Your task to perform on an android device: Play the new Ariana Grande video on YouTube Image 0: 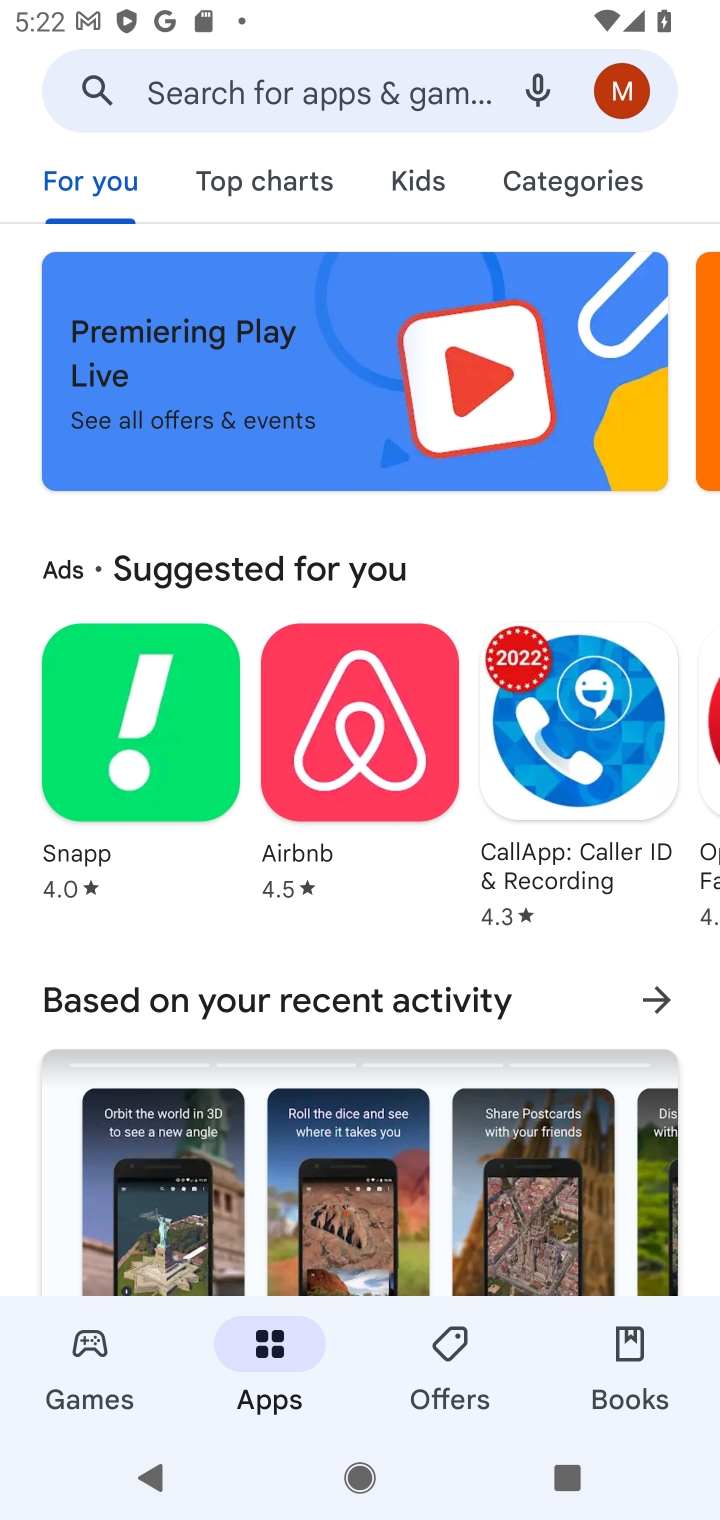
Step 0: press home button
Your task to perform on an android device: Play the new Ariana Grande video on YouTube Image 1: 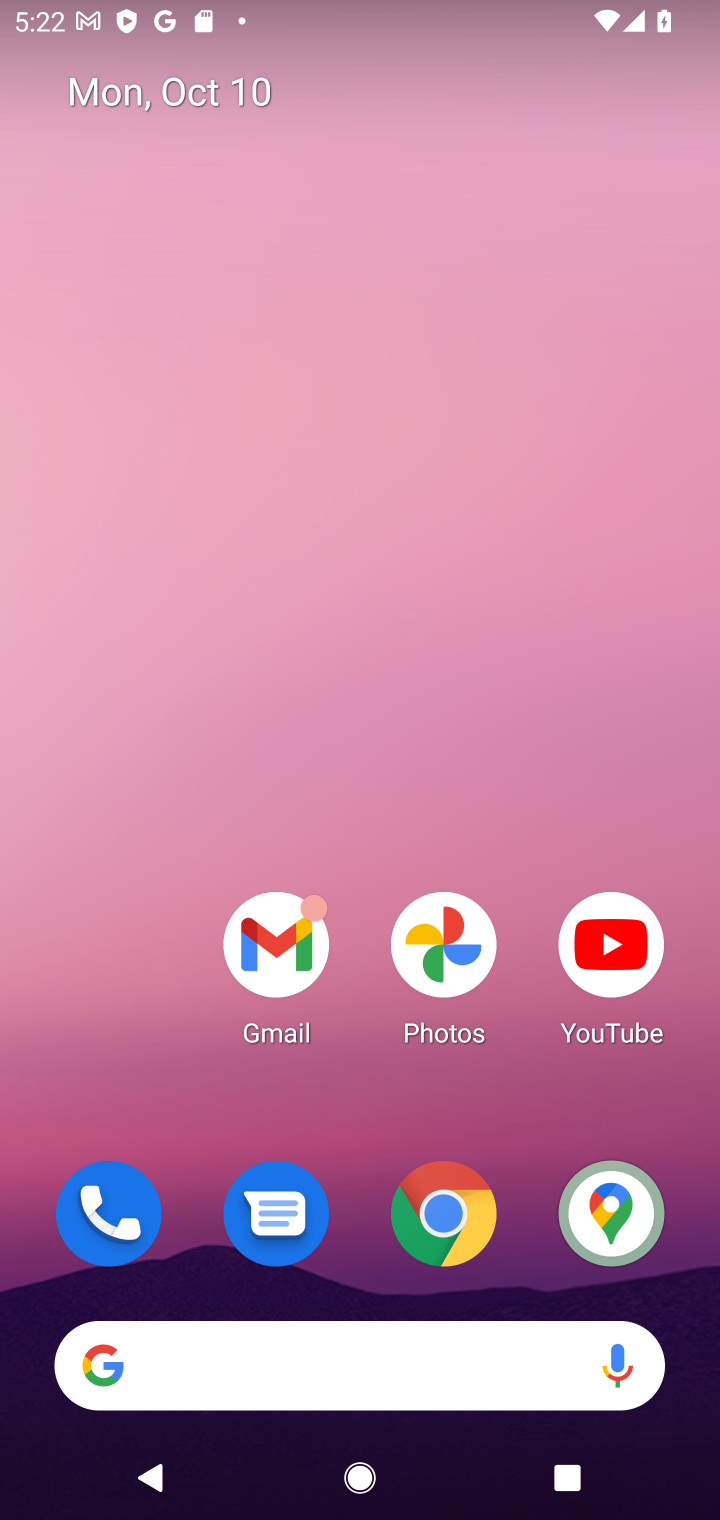
Step 1: click (647, 967)
Your task to perform on an android device: Play the new Ariana Grande video on YouTube Image 2: 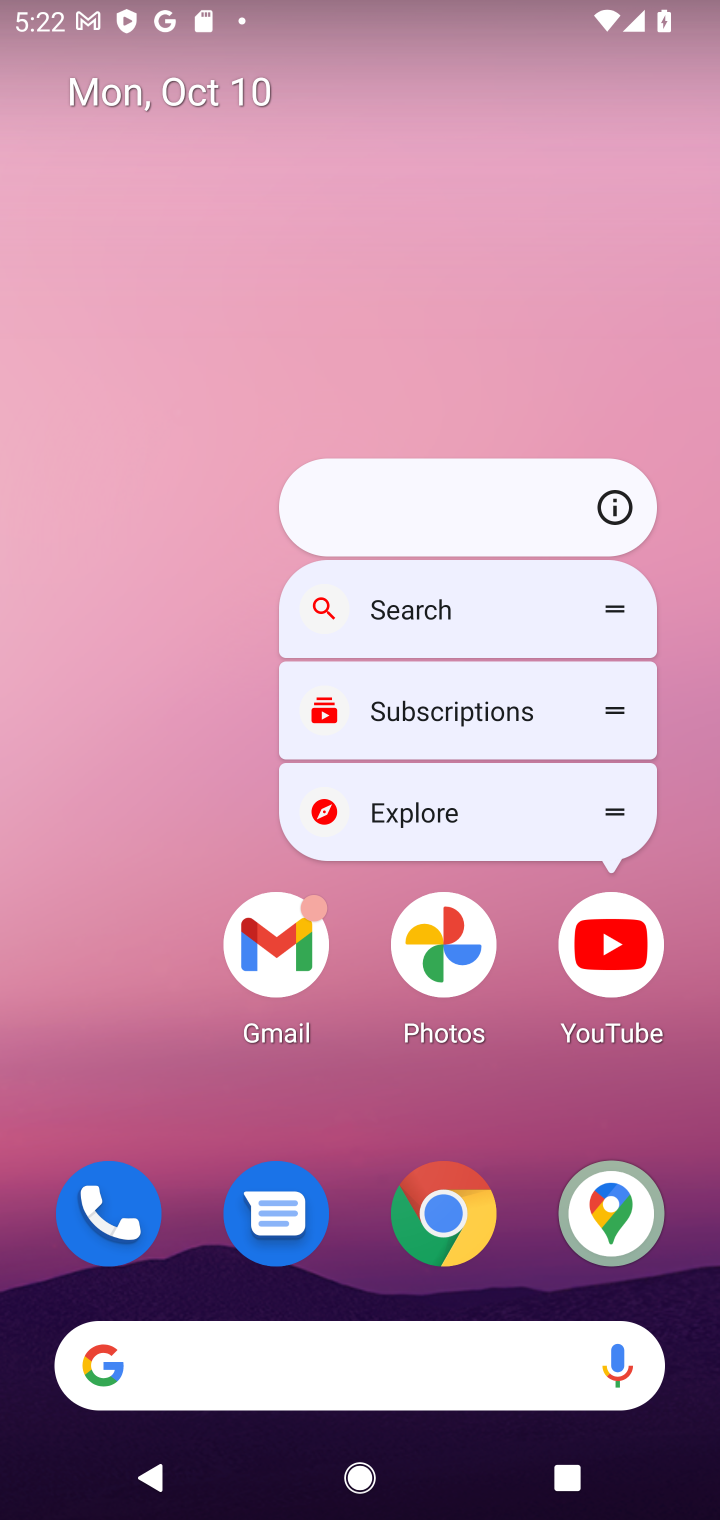
Step 2: click (629, 925)
Your task to perform on an android device: Play the new Ariana Grande video on YouTube Image 3: 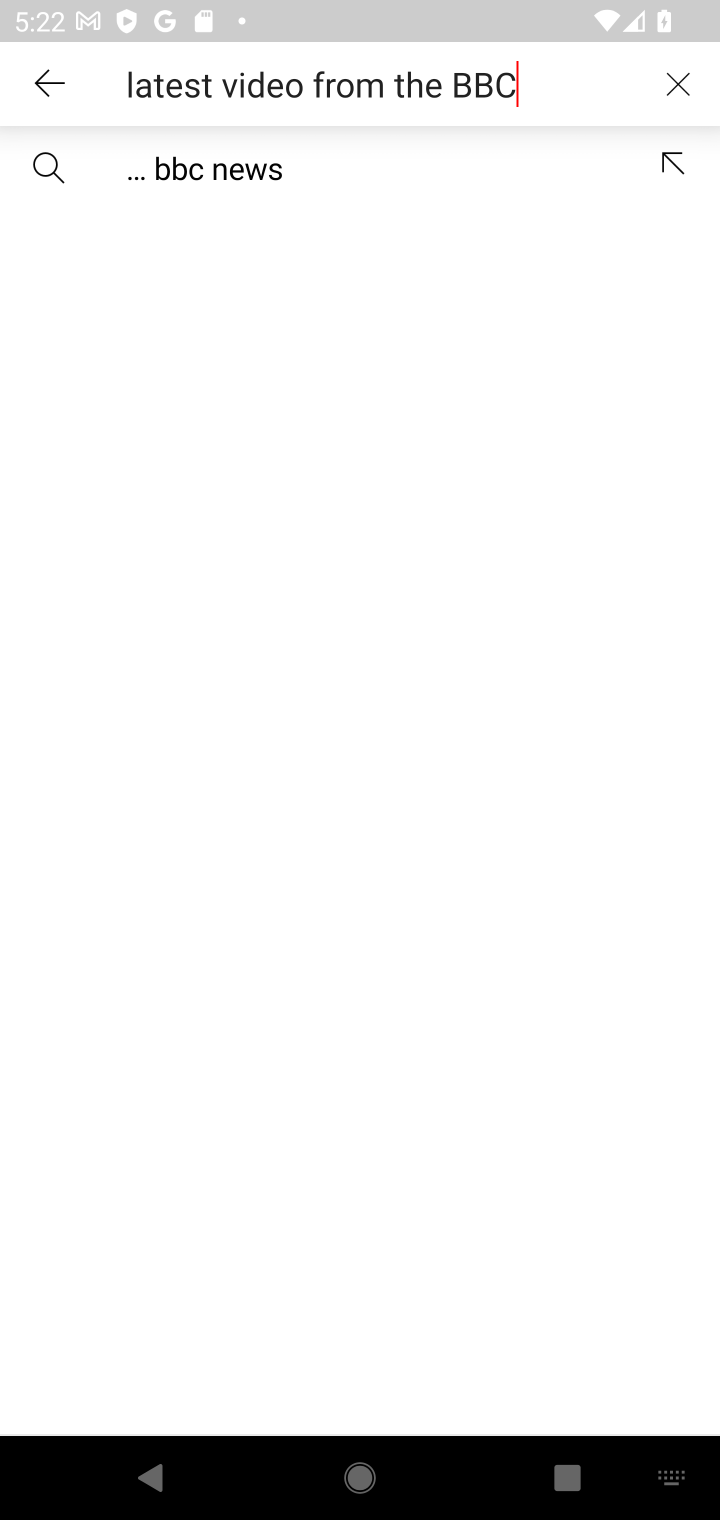
Step 3: click (658, 84)
Your task to perform on an android device: Play the new Ariana Grande video on YouTube Image 4: 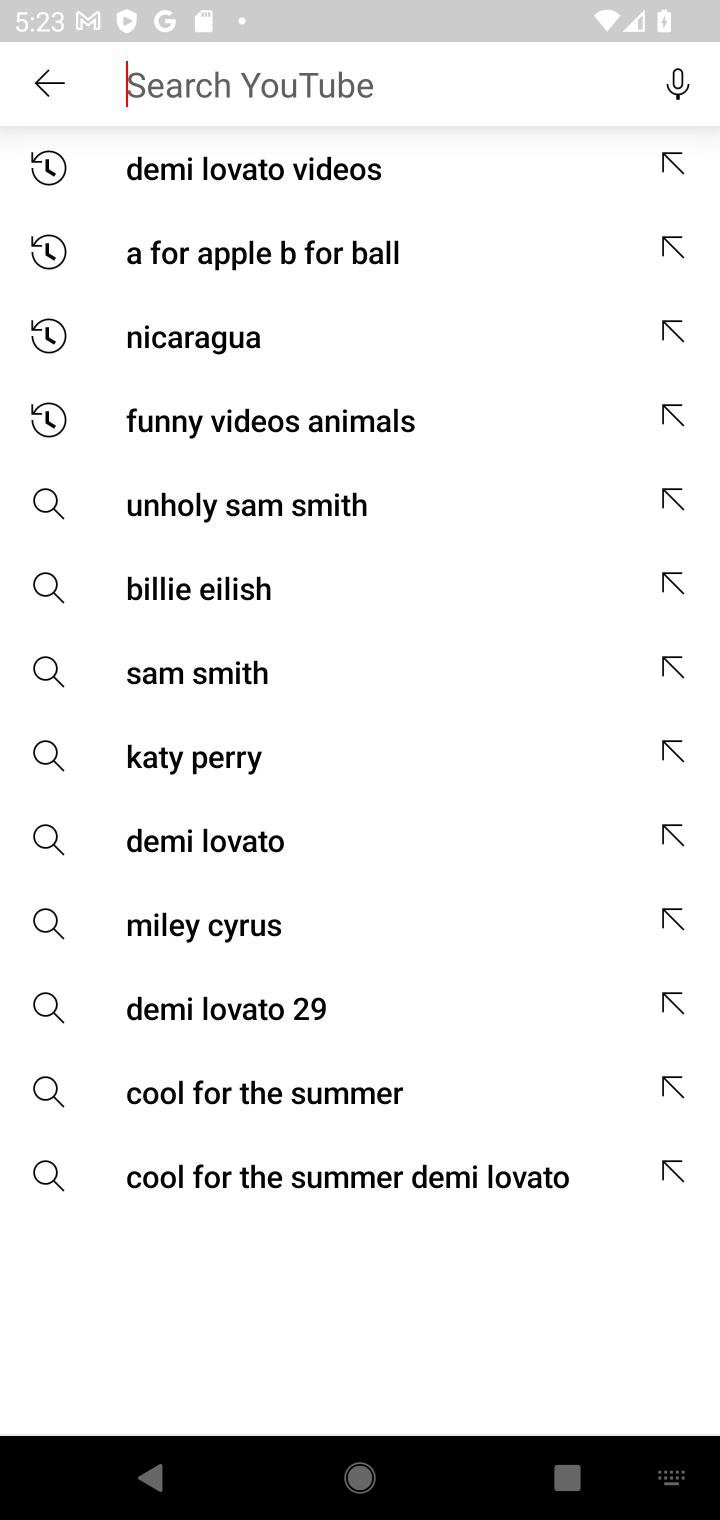
Step 4: type "Ariana Grande video"
Your task to perform on an android device: Play the new Ariana Grande video on YouTube Image 5: 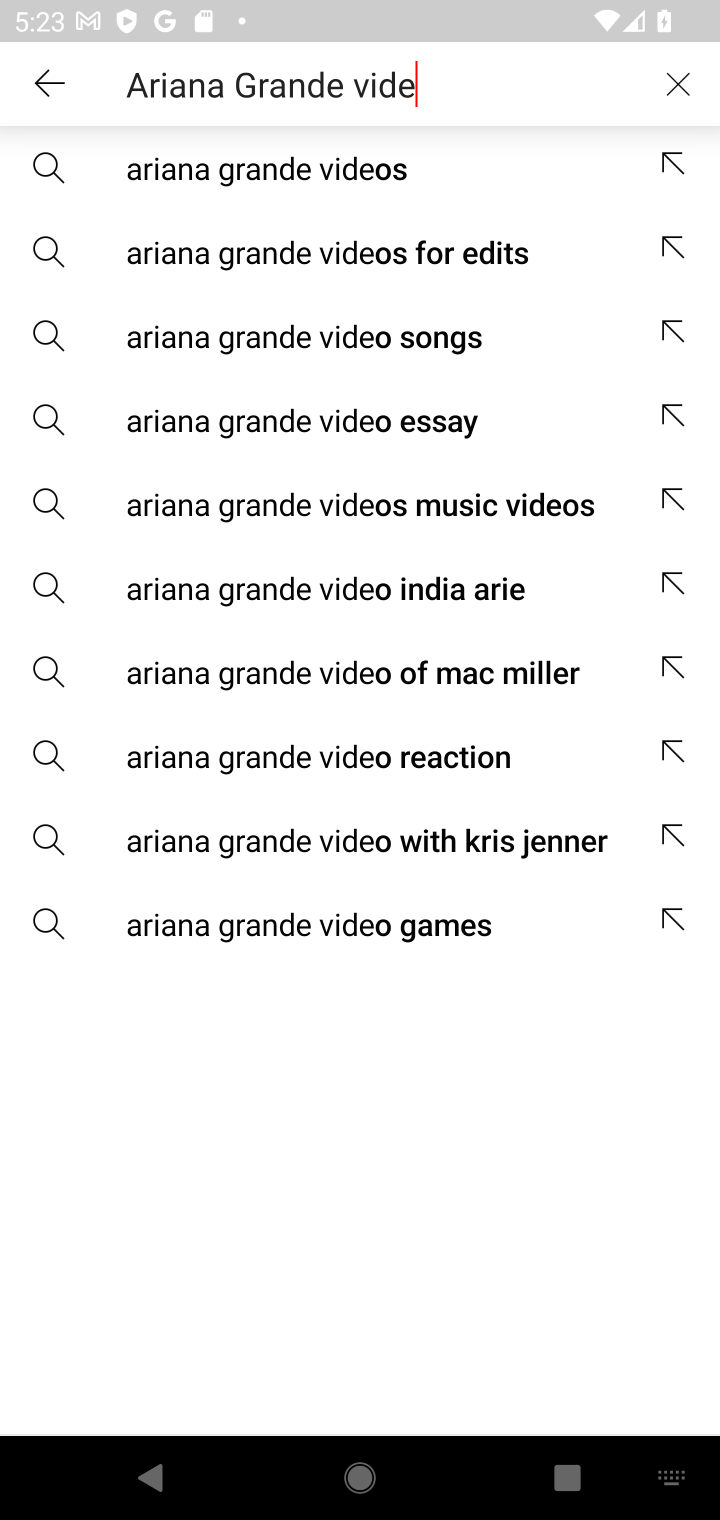
Step 5: type ""
Your task to perform on an android device: Play the new Ariana Grande video on YouTube Image 6: 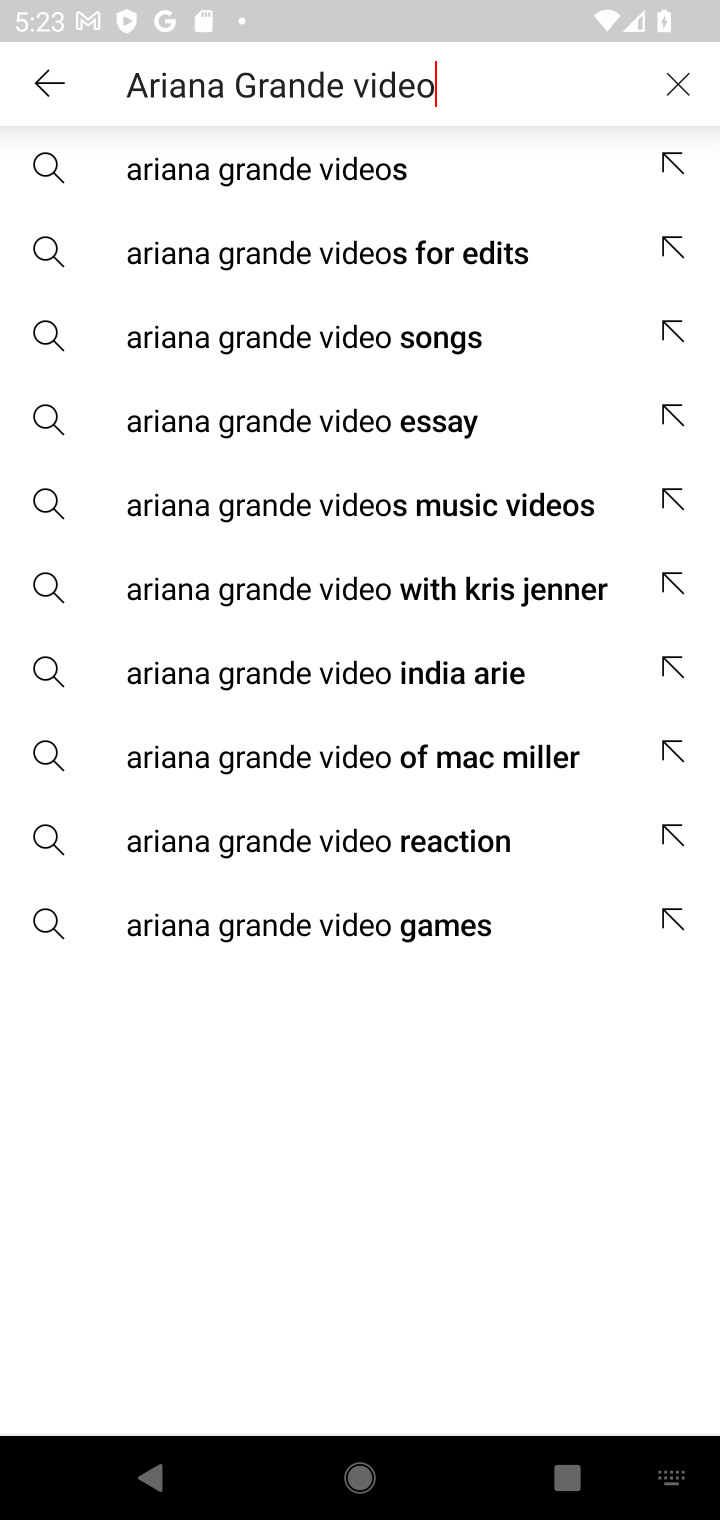
Step 6: click (436, 178)
Your task to perform on an android device: Play the new Ariana Grande video on YouTube Image 7: 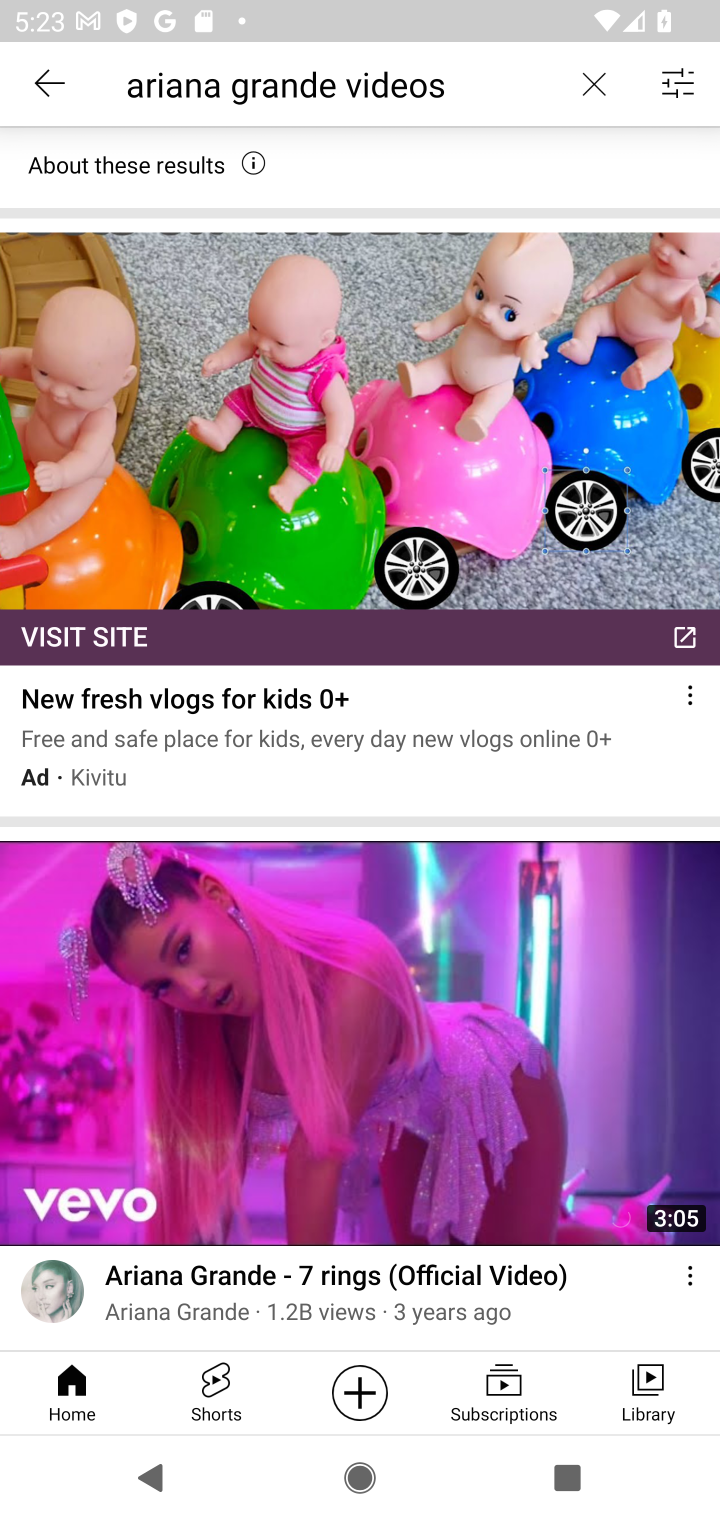
Step 7: click (378, 994)
Your task to perform on an android device: Play the new Ariana Grande video on YouTube Image 8: 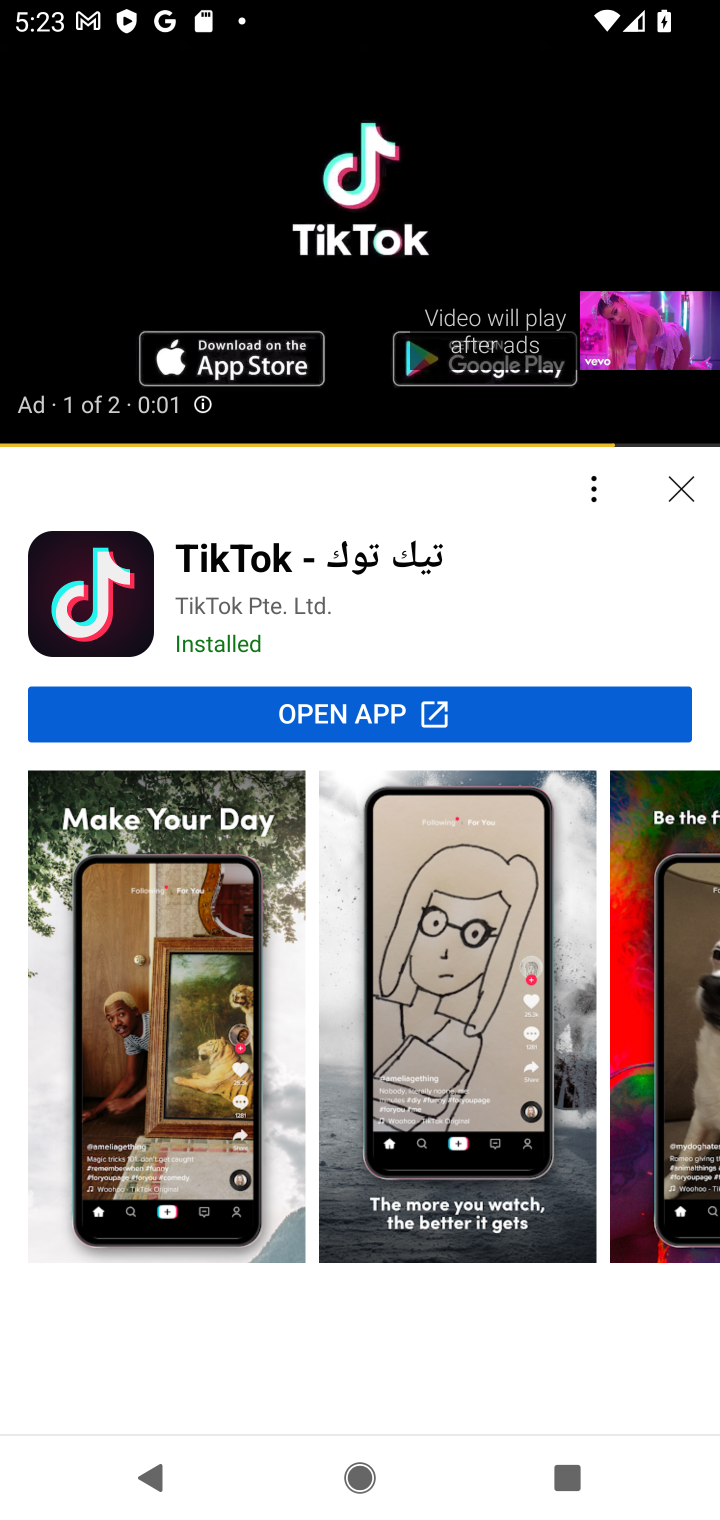
Step 8: click (672, 485)
Your task to perform on an android device: Play the new Ariana Grande video on YouTube Image 9: 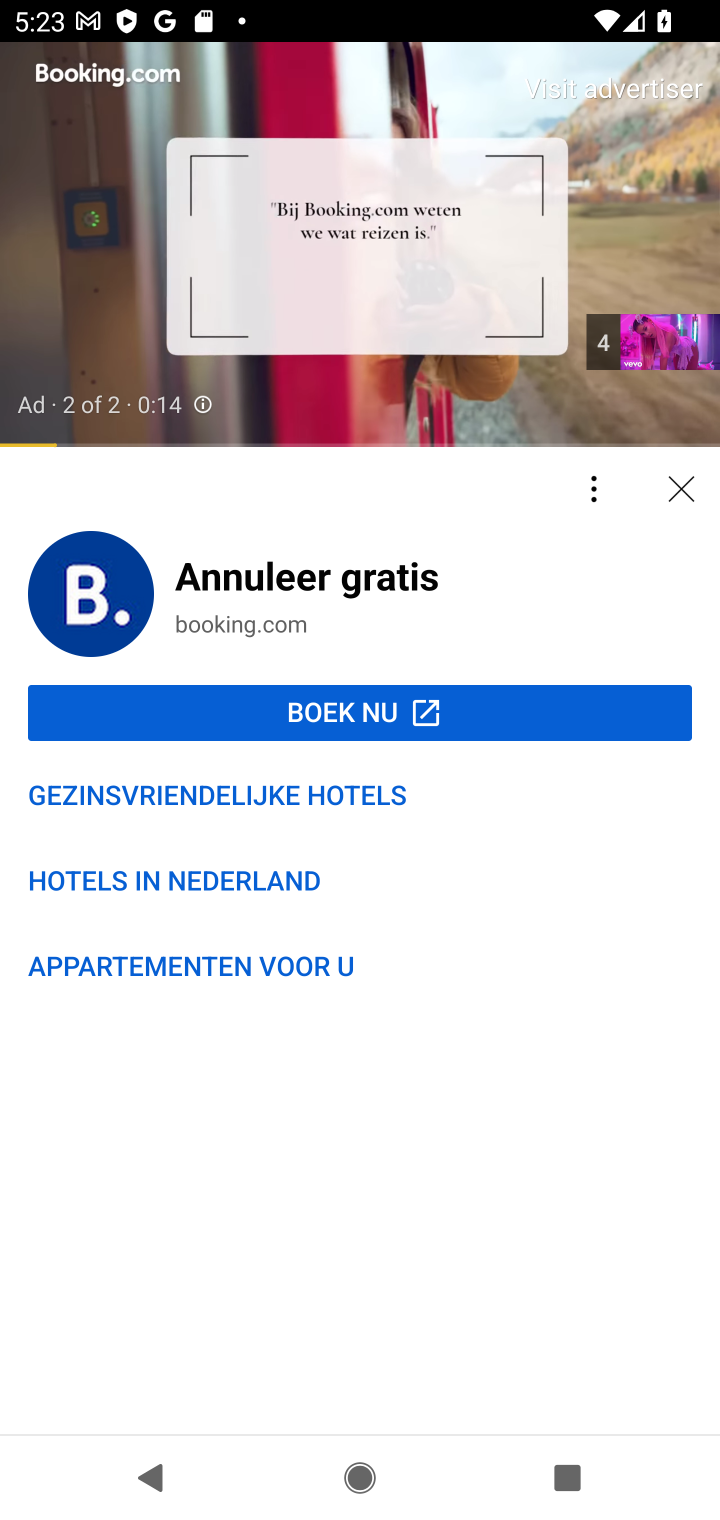
Step 9: click (297, 259)
Your task to perform on an android device: Play the new Ariana Grande video on YouTube Image 10: 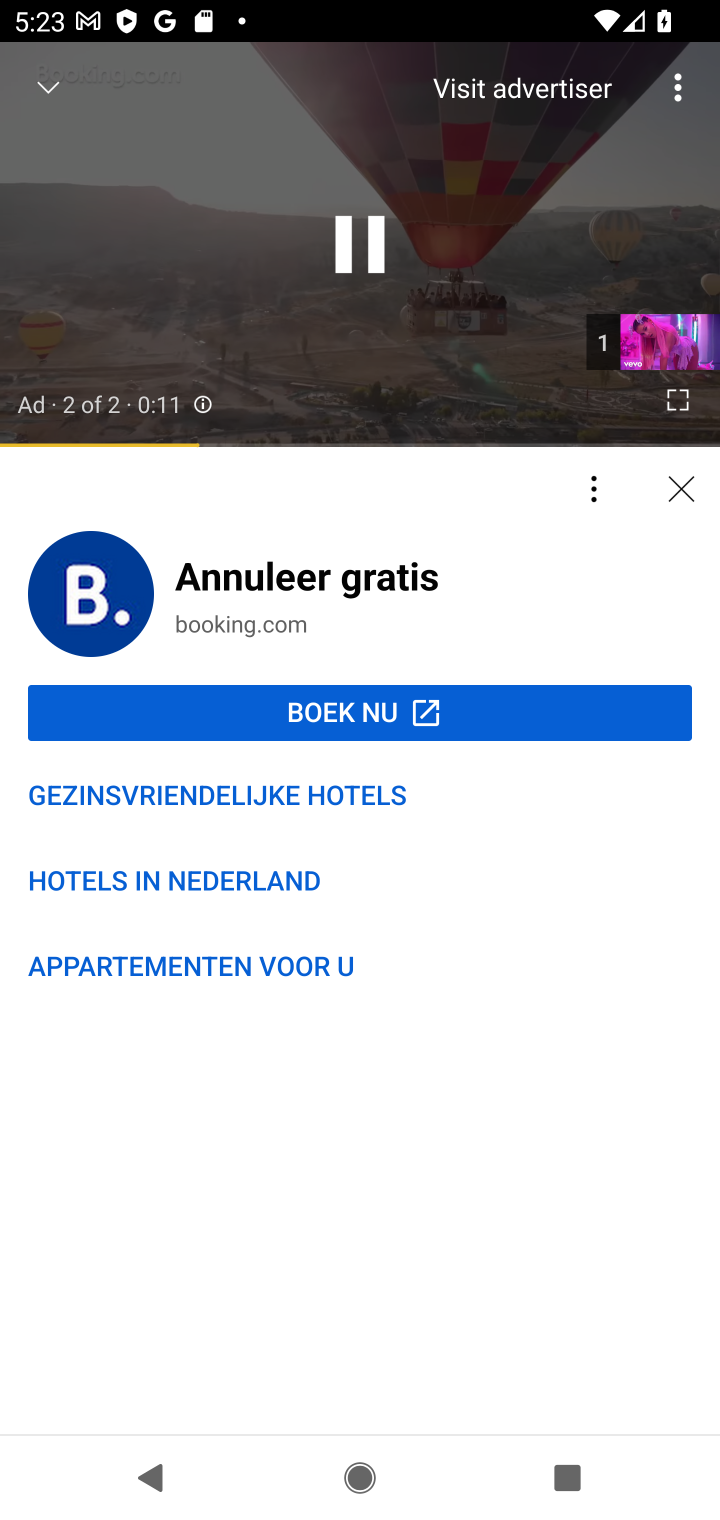
Step 10: click (671, 496)
Your task to perform on an android device: Play the new Ariana Grande video on YouTube Image 11: 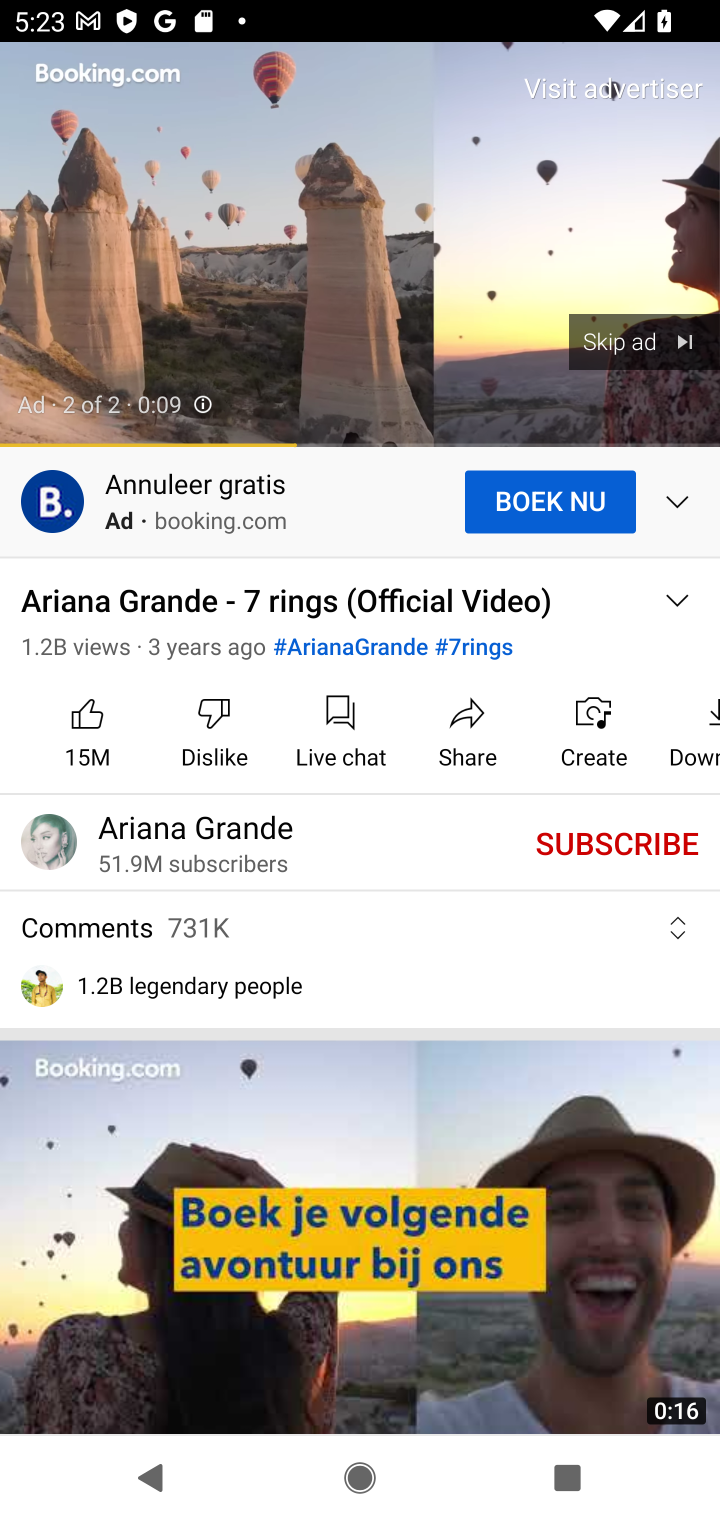
Step 11: click (611, 355)
Your task to perform on an android device: Play the new Ariana Grande video on YouTube Image 12: 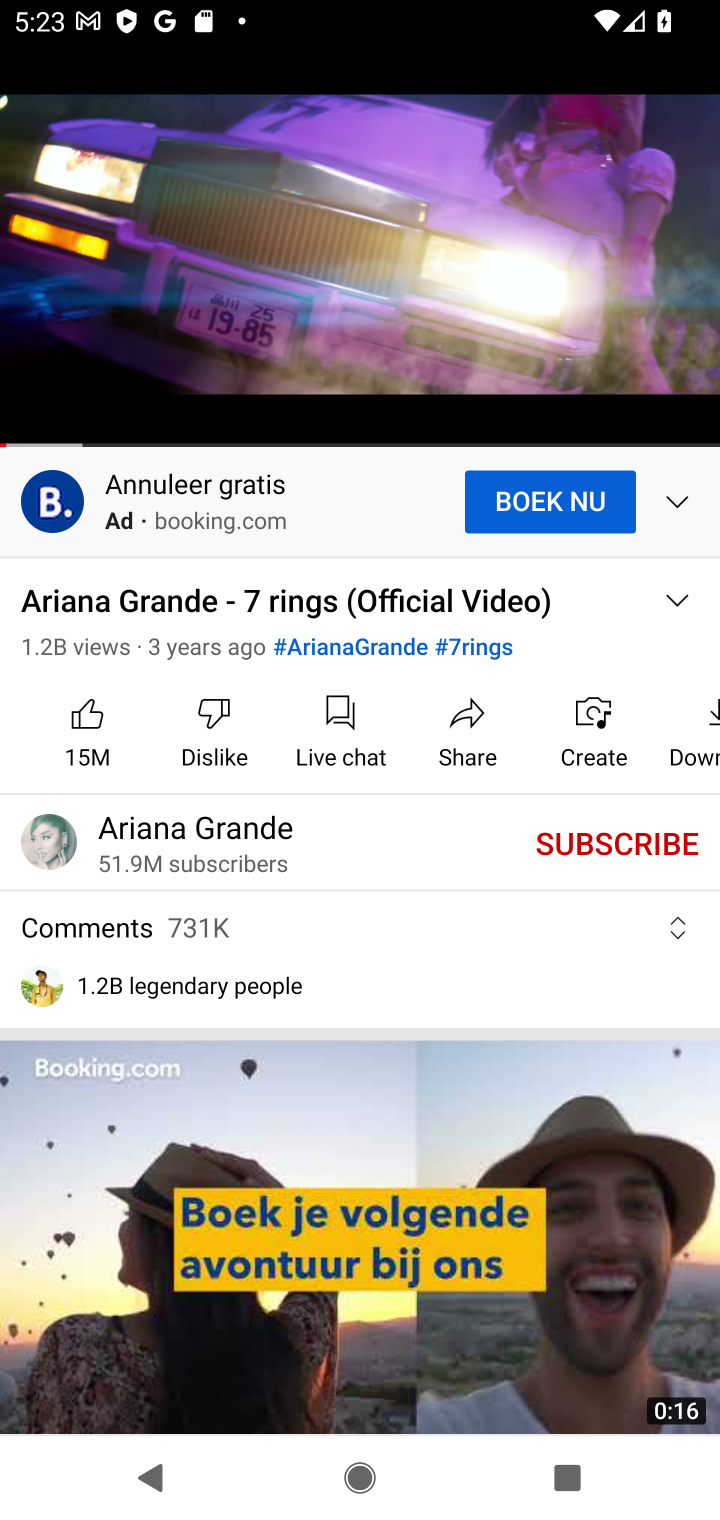
Step 12: click (394, 270)
Your task to perform on an android device: Play the new Ariana Grande video on YouTube Image 13: 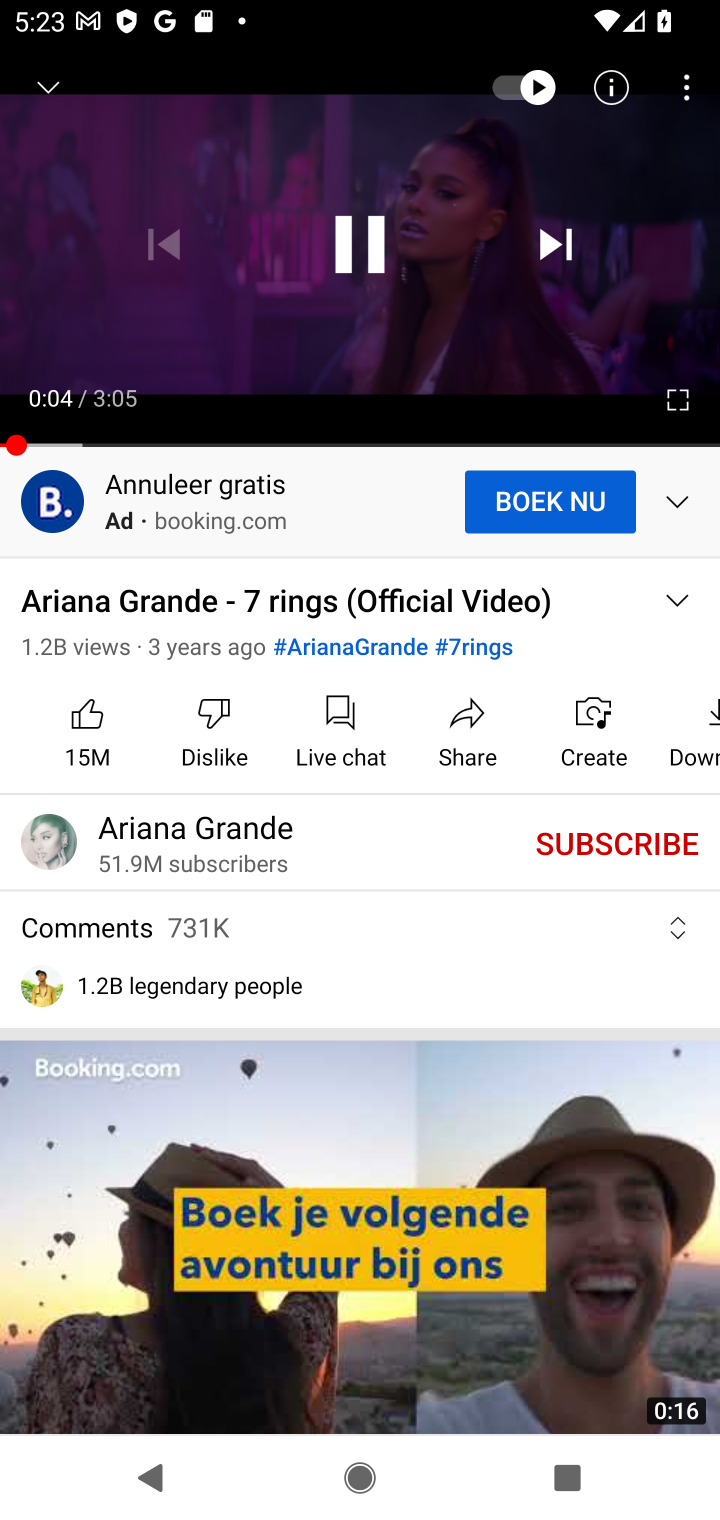
Step 13: click (368, 228)
Your task to perform on an android device: Play the new Ariana Grande video on YouTube Image 14: 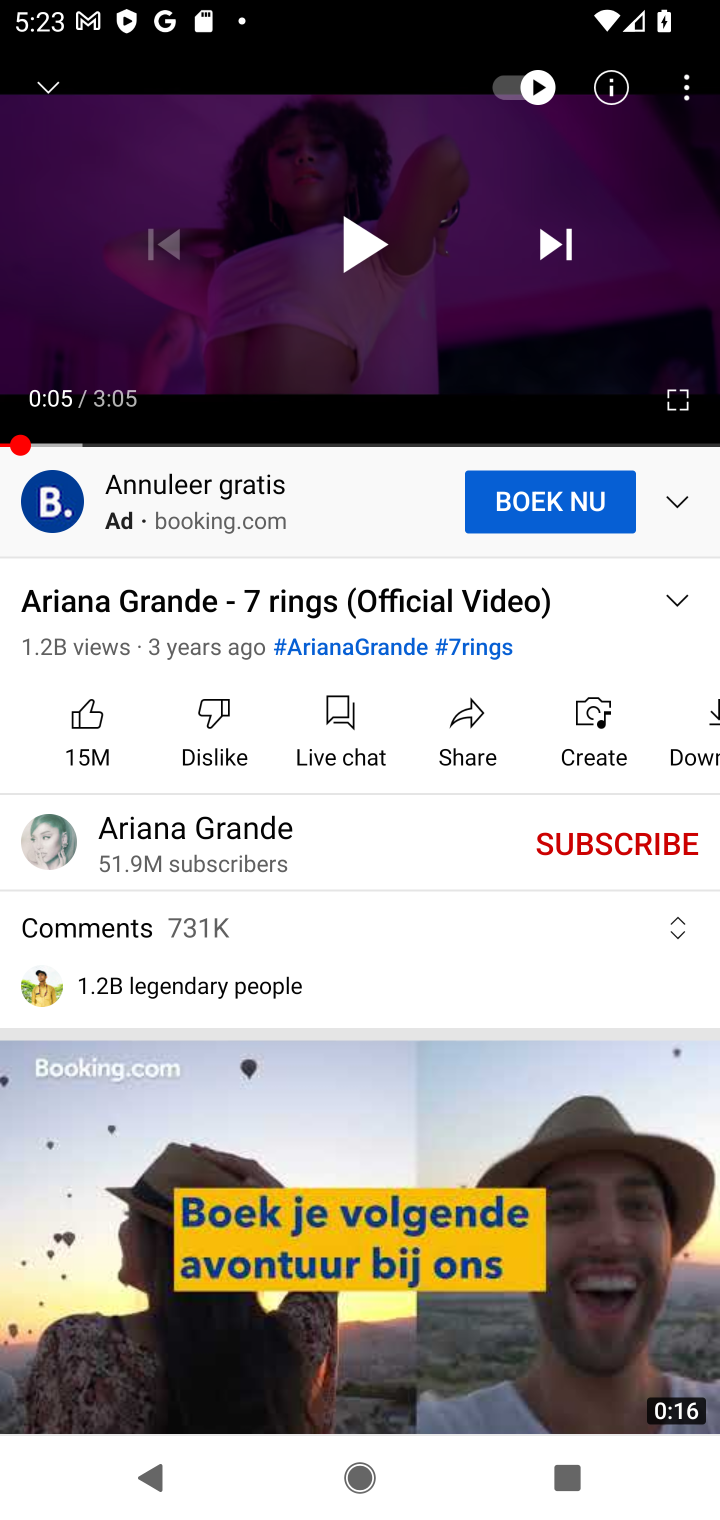
Step 14: task complete